Your task to perform on an android device: snooze an email in the gmail app Image 0: 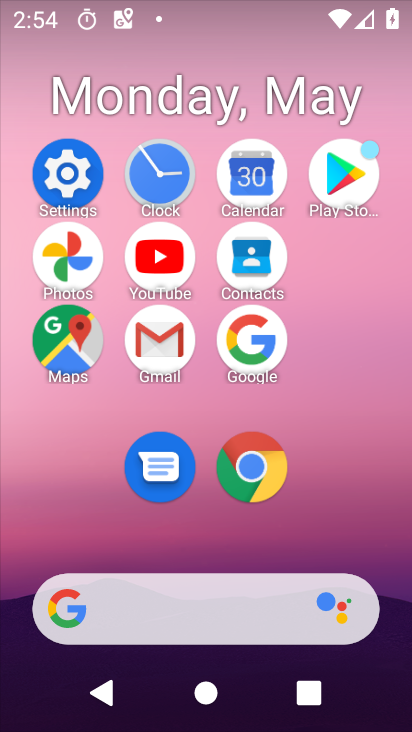
Step 0: click (178, 337)
Your task to perform on an android device: snooze an email in the gmail app Image 1: 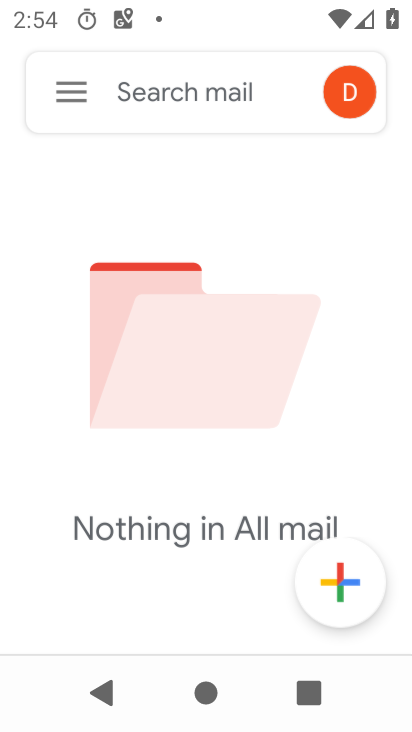
Step 1: click (60, 91)
Your task to perform on an android device: snooze an email in the gmail app Image 2: 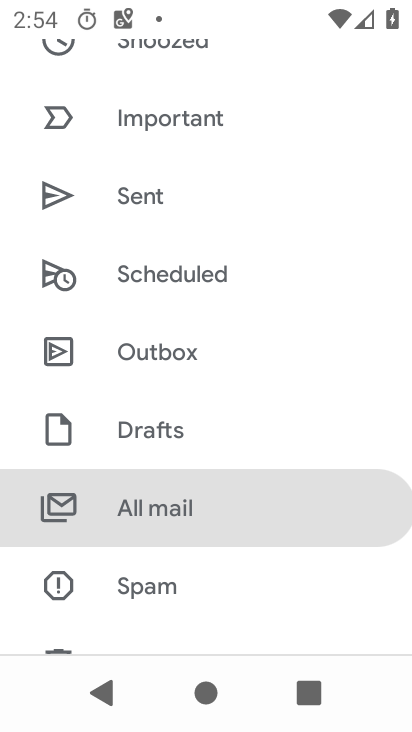
Step 2: click (207, 509)
Your task to perform on an android device: snooze an email in the gmail app Image 3: 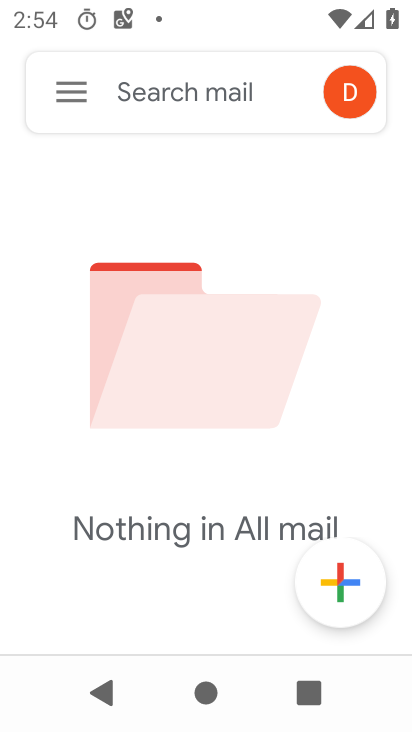
Step 3: task complete